Your task to perform on an android device: What's the weather? Image 0: 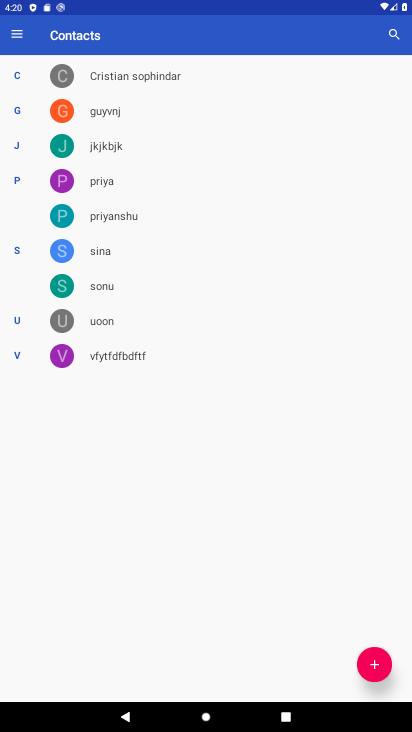
Step 0: press home button
Your task to perform on an android device: What's the weather? Image 1: 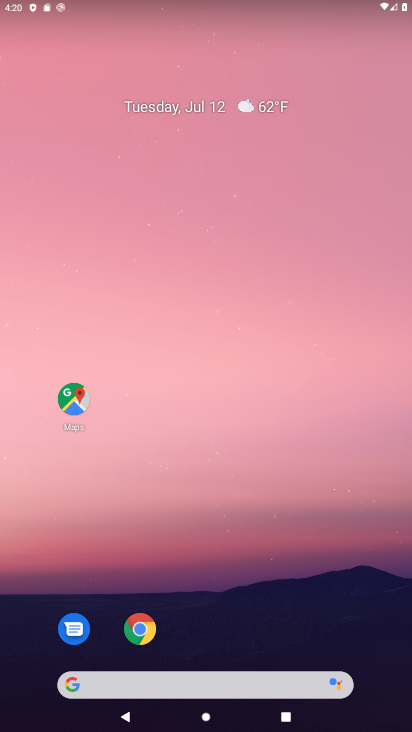
Step 1: drag from (184, 662) to (205, 91)
Your task to perform on an android device: What's the weather? Image 2: 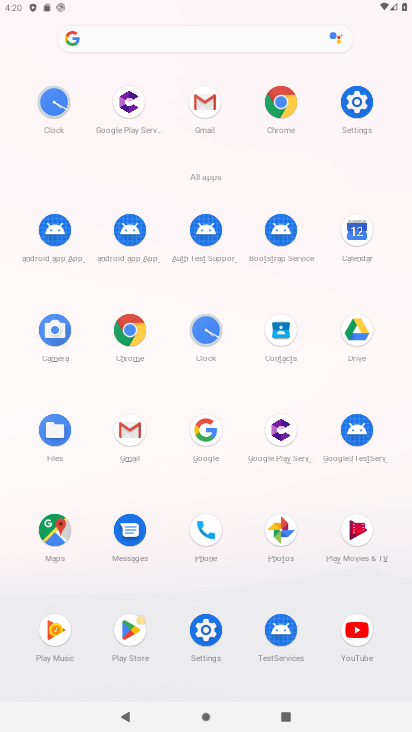
Step 2: click (200, 431)
Your task to perform on an android device: What's the weather? Image 3: 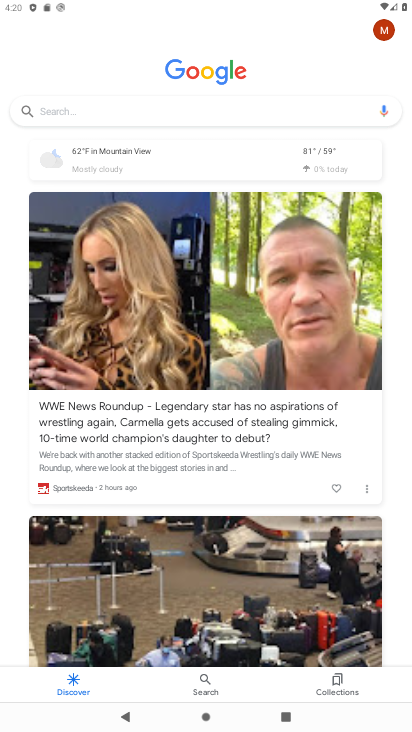
Step 3: click (145, 146)
Your task to perform on an android device: What's the weather? Image 4: 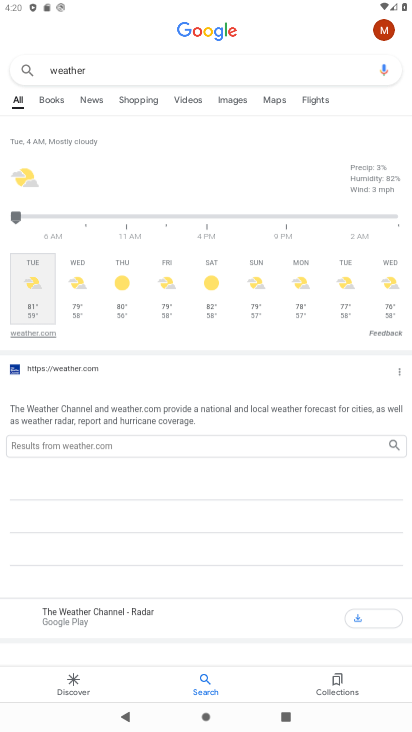
Step 4: task complete